Your task to perform on an android device: see creations saved in the google photos Image 0: 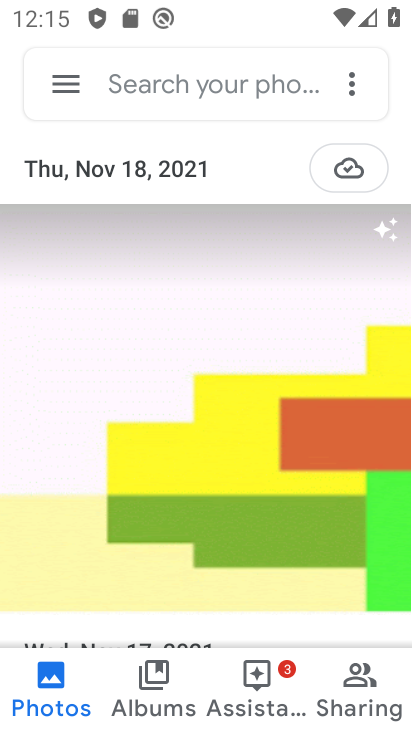
Step 0: press home button
Your task to perform on an android device: see creations saved in the google photos Image 1: 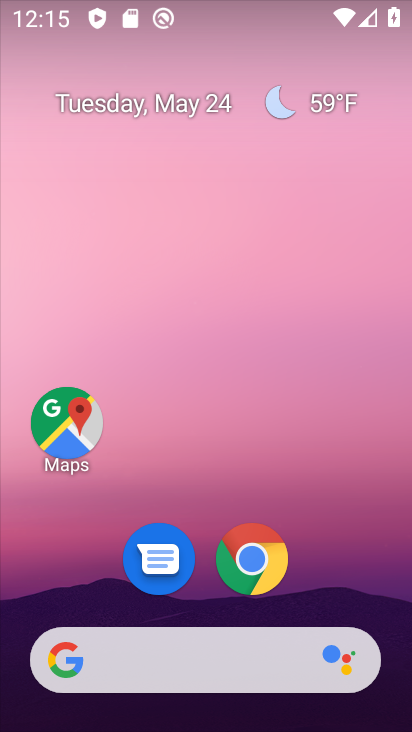
Step 1: drag from (354, 608) to (298, 33)
Your task to perform on an android device: see creations saved in the google photos Image 2: 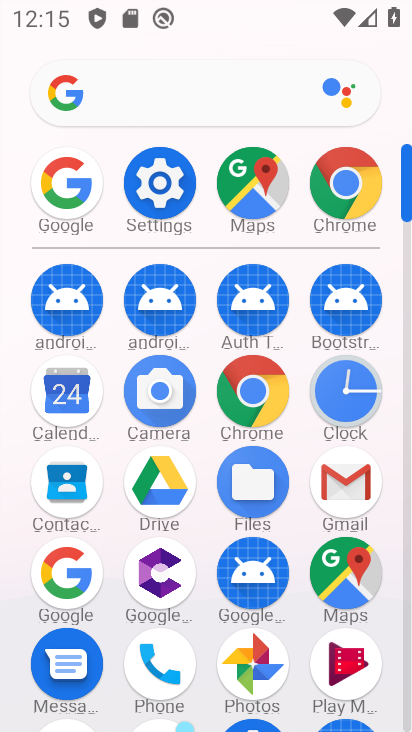
Step 2: click (266, 650)
Your task to perform on an android device: see creations saved in the google photos Image 3: 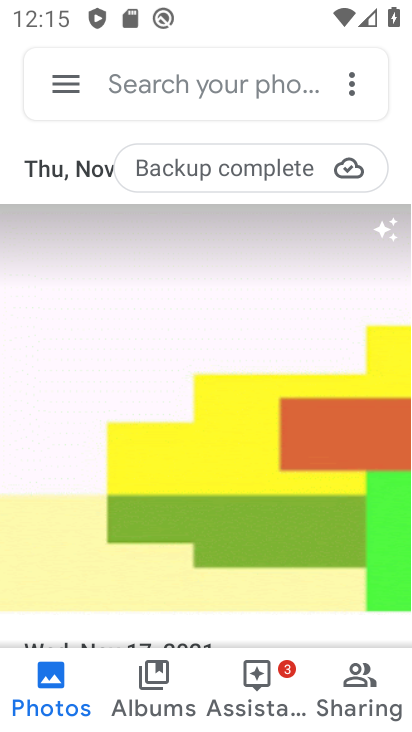
Step 3: click (197, 84)
Your task to perform on an android device: see creations saved in the google photos Image 4: 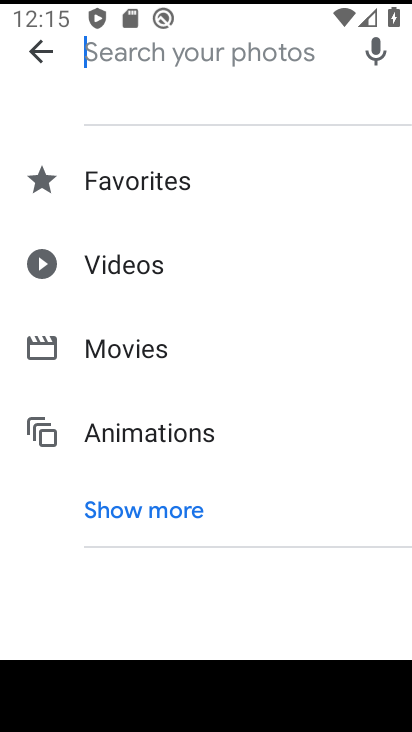
Step 4: click (179, 526)
Your task to perform on an android device: see creations saved in the google photos Image 5: 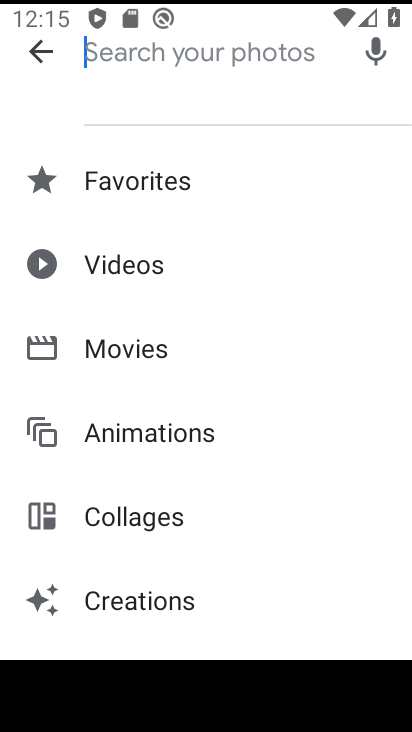
Step 5: click (164, 609)
Your task to perform on an android device: see creations saved in the google photos Image 6: 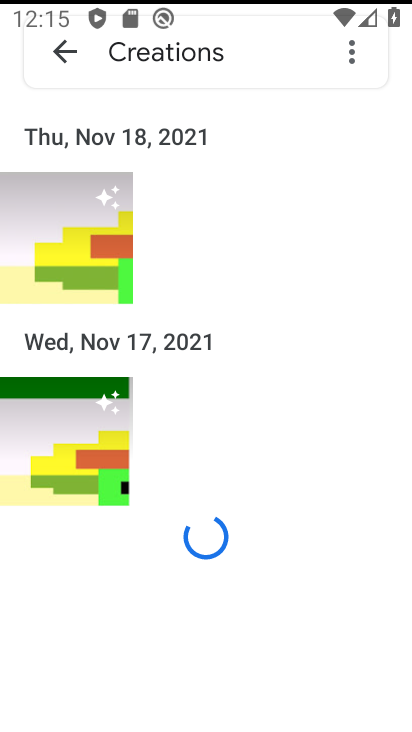
Step 6: task complete